Your task to perform on an android device: clear history in the chrome app Image 0: 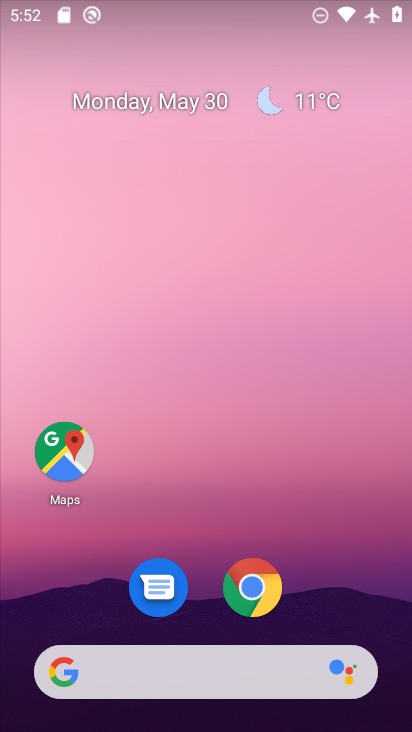
Step 0: drag from (352, 537) to (221, 2)
Your task to perform on an android device: clear history in the chrome app Image 1: 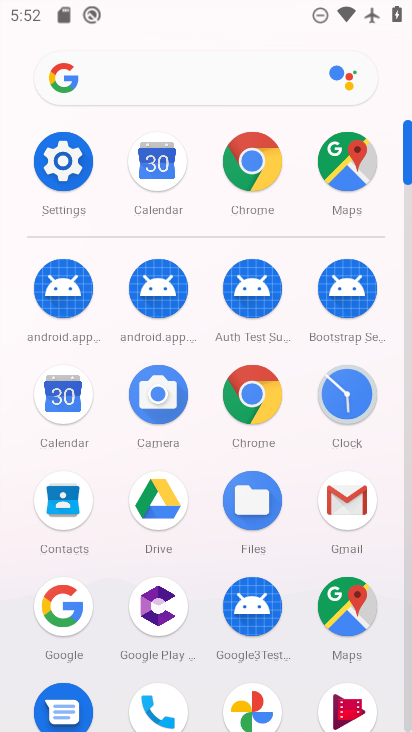
Step 1: drag from (6, 555) to (5, 315)
Your task to perform on an android device: clear history in the chrome app Image 2: 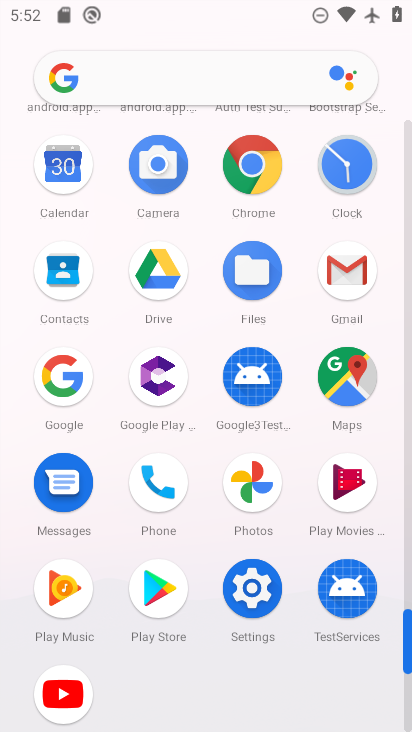
Step 2: click (252, 160)
Your task to perform on an android device: clear history in the chrome app Image 3: 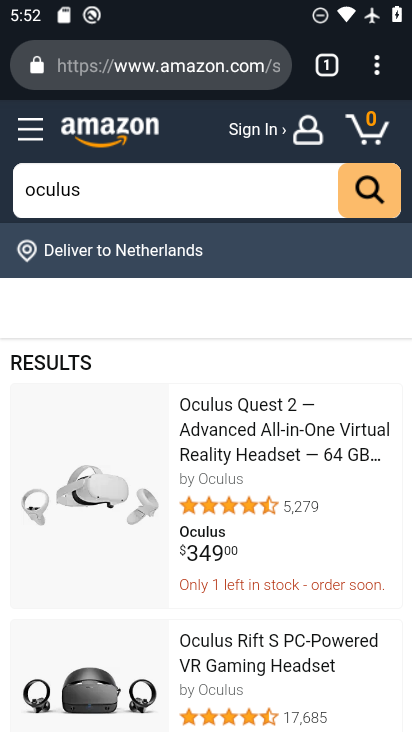
Step 3: drag from (380, 61) to (181, 351)
Your task to perform on an android device: clear history in the chrome app Image 4: 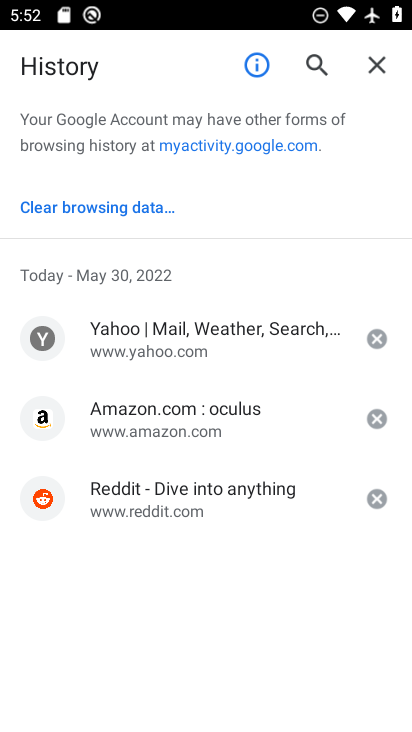
Step 4: click (104, 208)
Your task to perform on an android device: clear history in the chrome app Image 5: 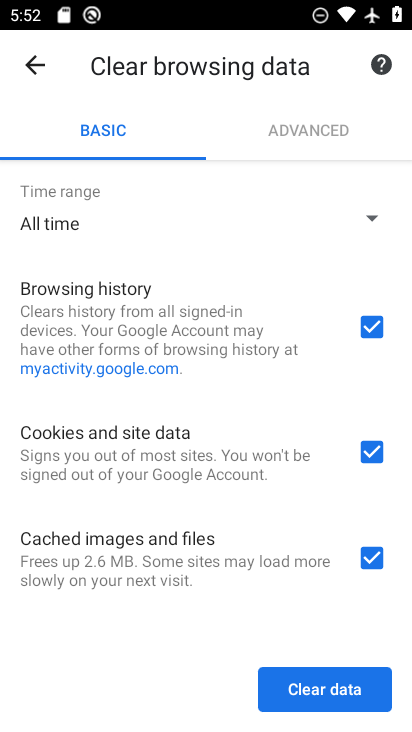
Step 5: click (314, 674)
Your task to perform on an android device: clear history in the chrome app Image 6: 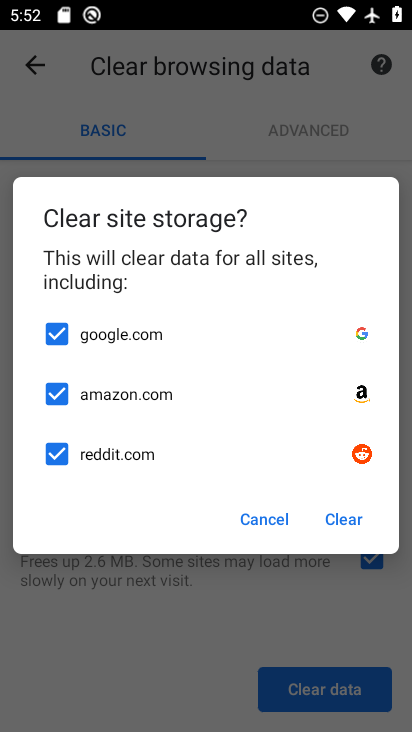
Step 6: click (348, 514)
Your task to perform on an android device: clear history in the chrome app Image 7: 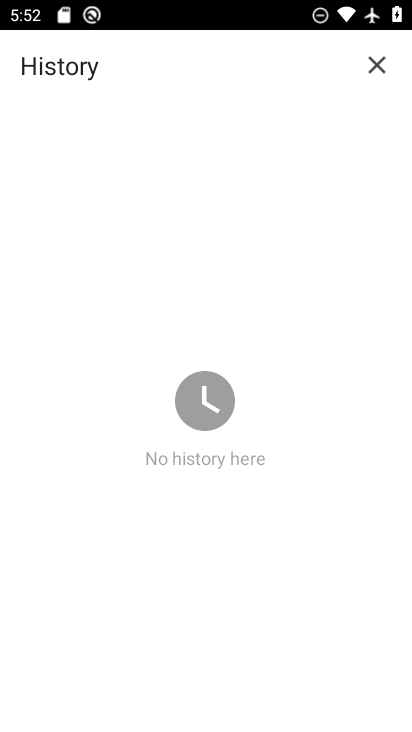
Step 7: task complete